Your task to perform on an android device: Open the web browser Image 0: 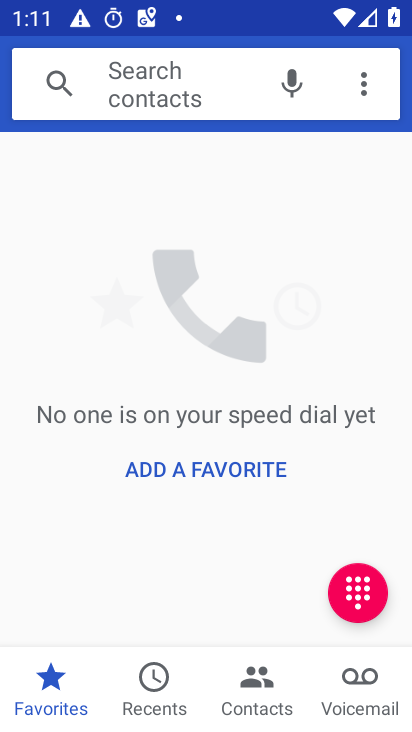
Step 0: press home button
Your task to perform on an android device: Open the web browser Image 1: 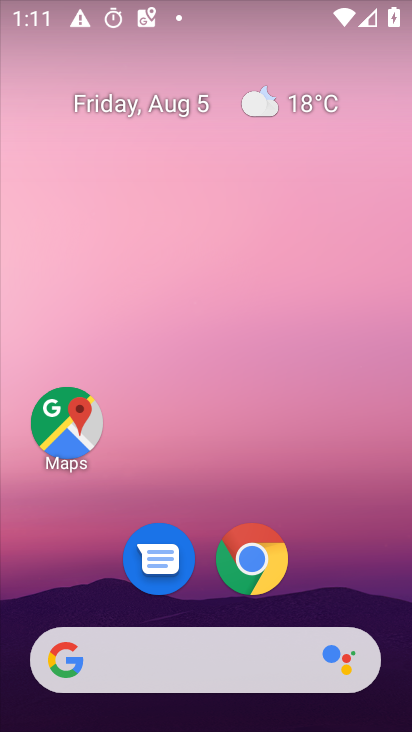
Step 1: task complete